Your task to perform on an android device: Go to display settings Image 0: 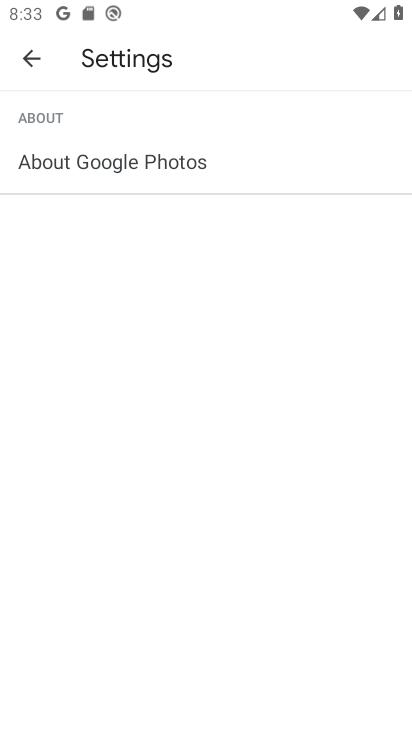
Step 0: press back button
Your task to perform on an android device: Go to display settings Image 1: 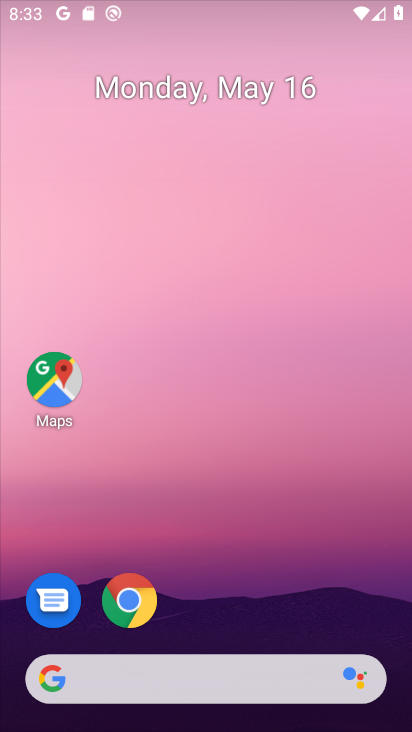
Step 1: drag from (270, 651) to (133, 245)
Your task to perform on an android device: Go to display settings Image 2: 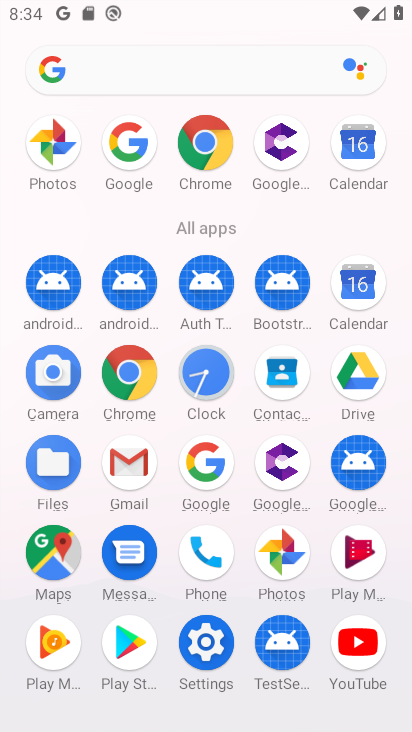
Step 2: click (200, 614)
Your task to perform on an android device: Go to display settings Image 3: 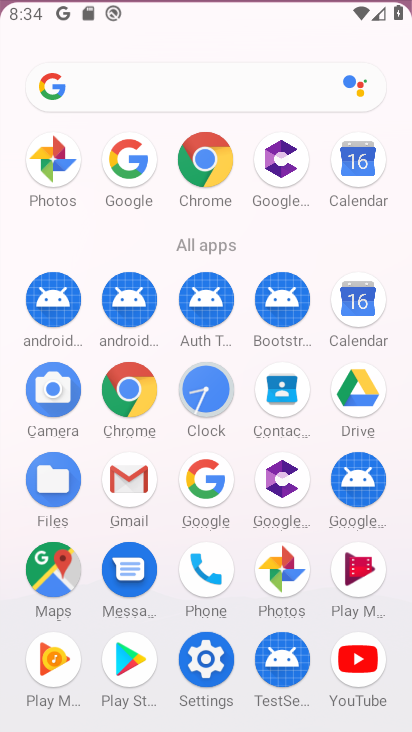
Step 3: click (205, 643)
Your task to perform on an android device: Go to display settings Image 4: 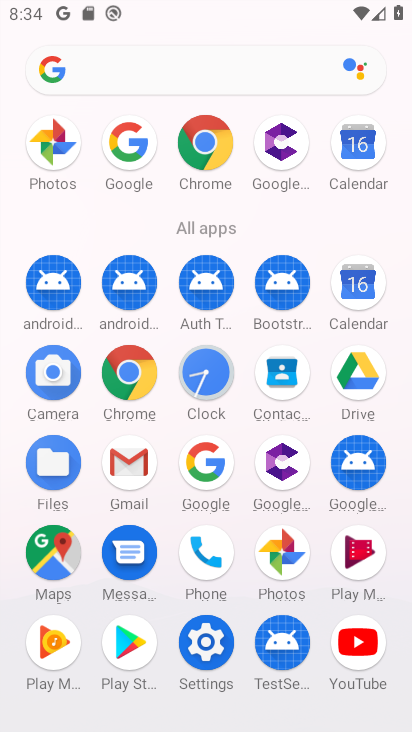
Step 4: click (206, 640)
Your task to perform on an android device: Go to display settings Image 5: 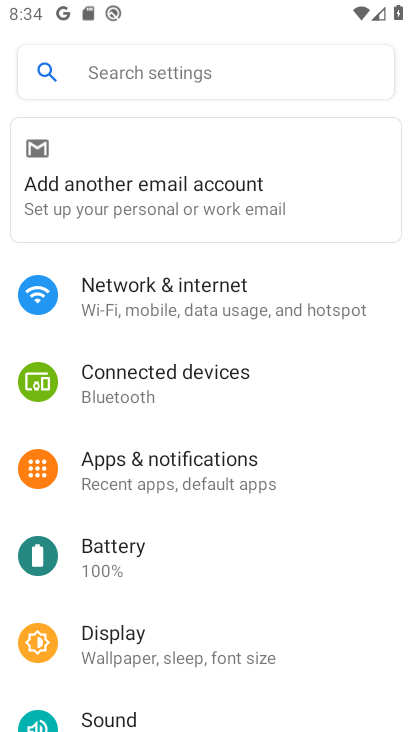
Step 5: click (102, 648)
Your task to perform on an android device: Go to display settings Image 6: 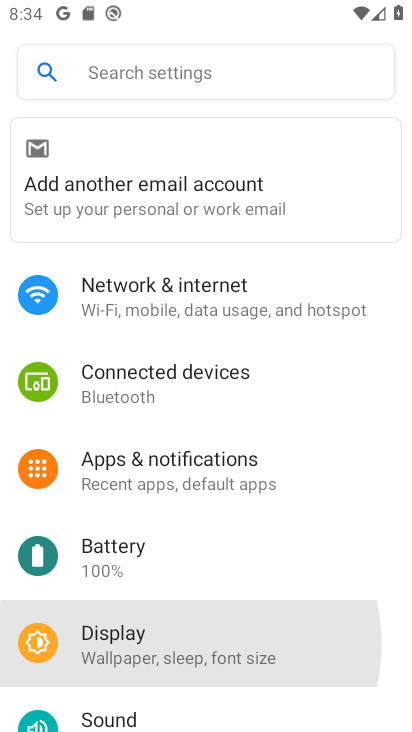
Step 6: click (106, 647)
Your task to perform on an android device: Go to display settings Image 7: 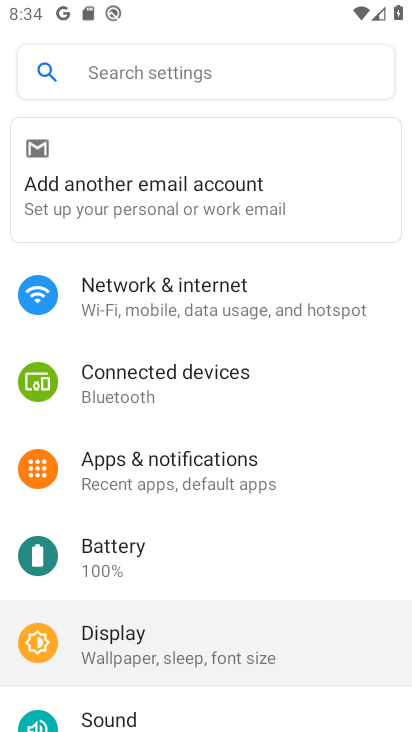
Step 7: click (106, 647)
Your task to perform on an android device: Go to display settings Image 8: 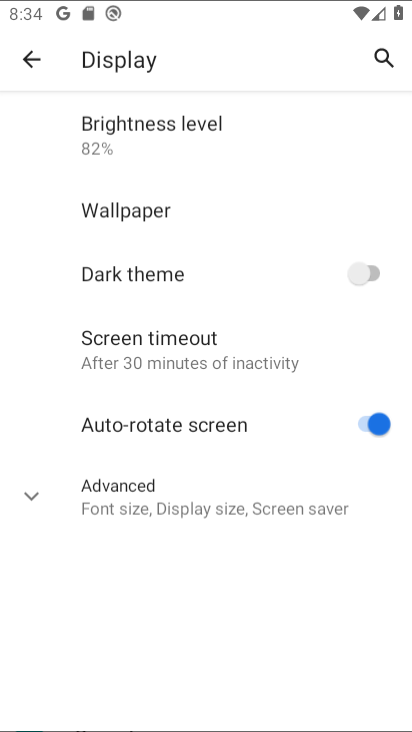
Step 8: click (108, 644)
Your task to perform on an android device: Go to display settings Image 9: 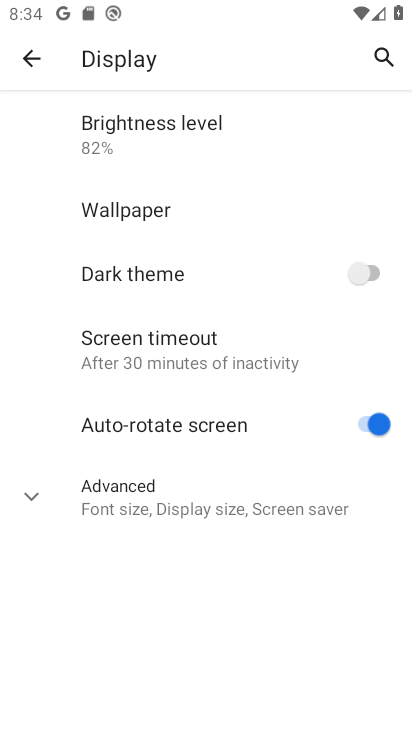
Step 9: task complete